Your task to perform on an android device: change notifications settings Image 0: 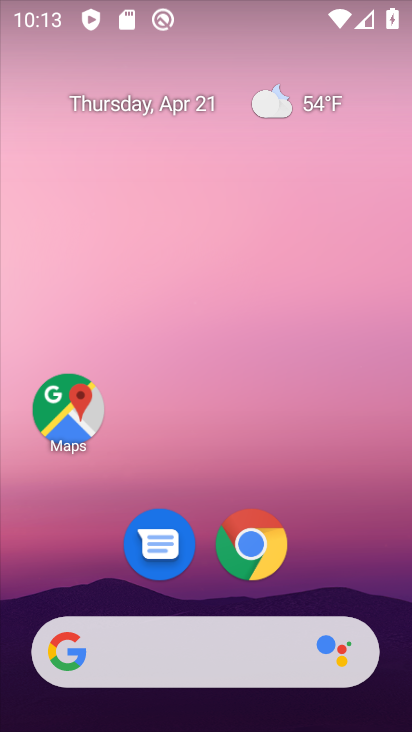
Step 0: click (20, 697)
Your task to perform on an android device: change notifications settings Image 1: 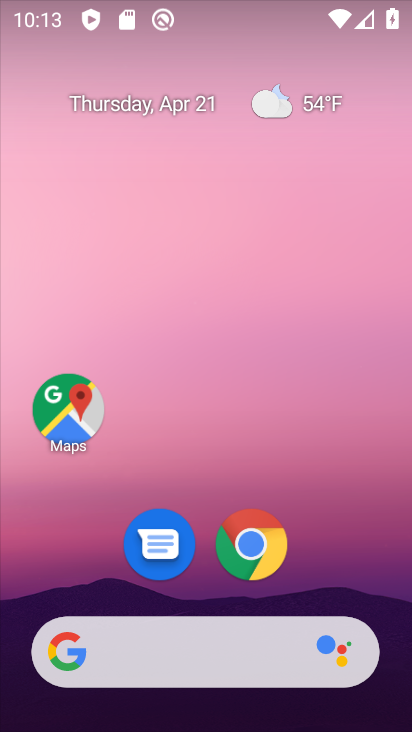
Step 1: drag from (82, 517) to (332, 173)
Your task to perform on an android device: change notifications settings Image 2: 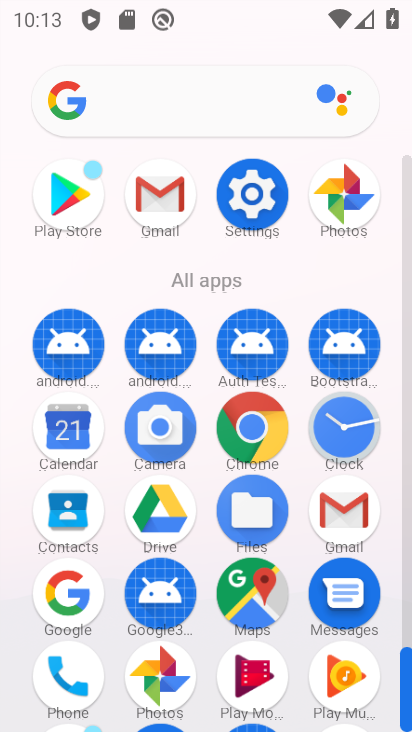
Step 2: click (266, 189)
Your task to perform on an android device: change notifications settings Image 3: 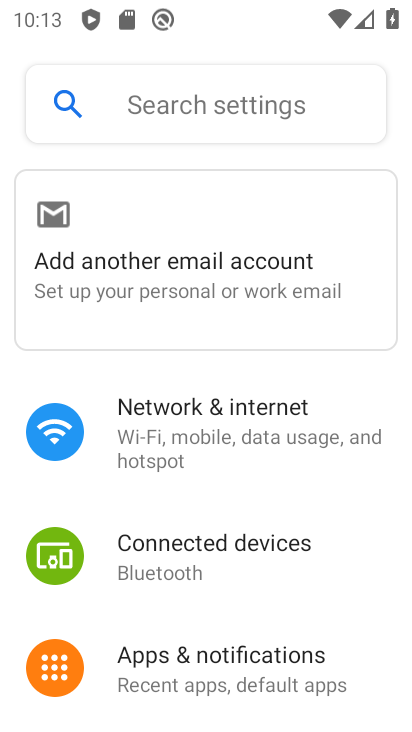
Step 3: click (177, 675)
Your task to perform on an android device: change notifications settings Image 4: 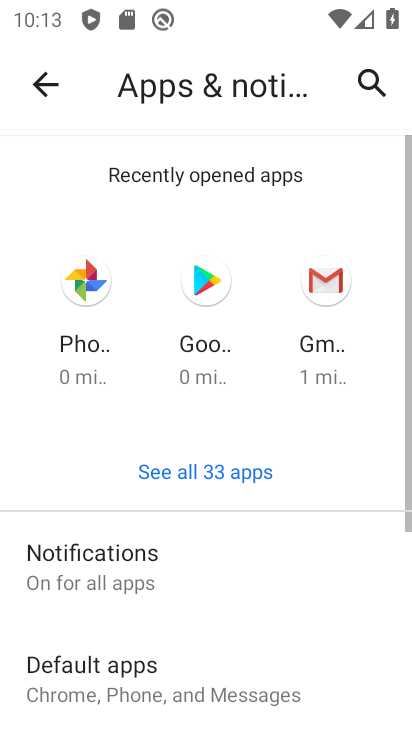
Step 4: click (177, 568)
Your task to perform on an android device: change notifications settings Image 5: 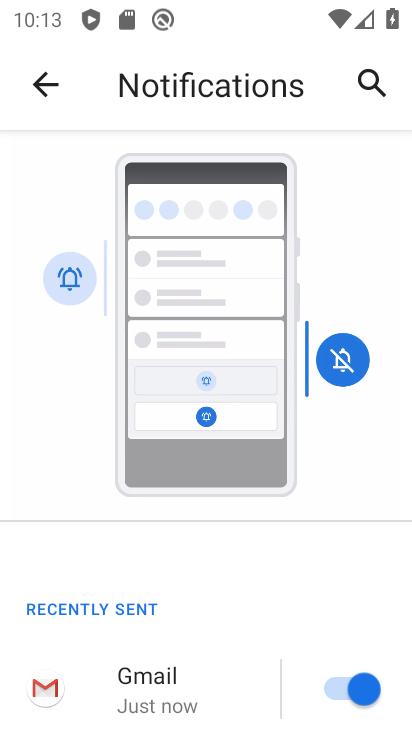
Step 5: drag from (108, 673) to (307, 326)
Your task to perform on an android device: change notifications settings Image 6: 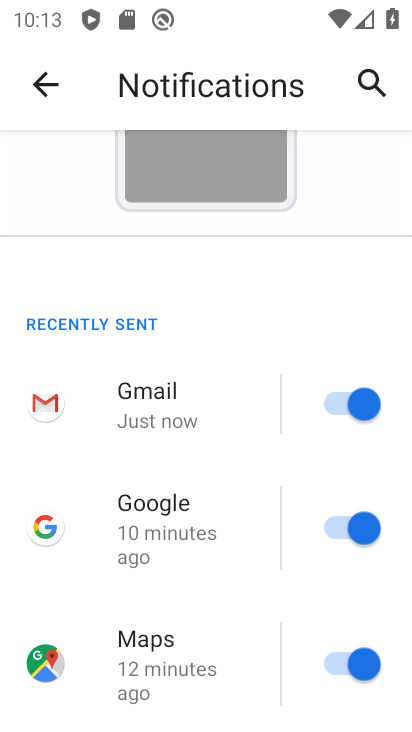
Step 6: drag from (137, 610) to (354, 239)
Your task to perform on an android device: change notifications settings Image 7: 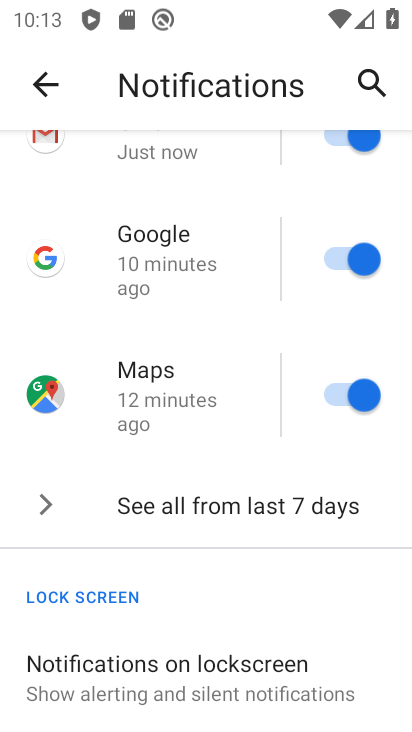
Step 7: drag from (81, 585) to (280, 321)
Your task to perform on an android device: change notifications settings Image 8: 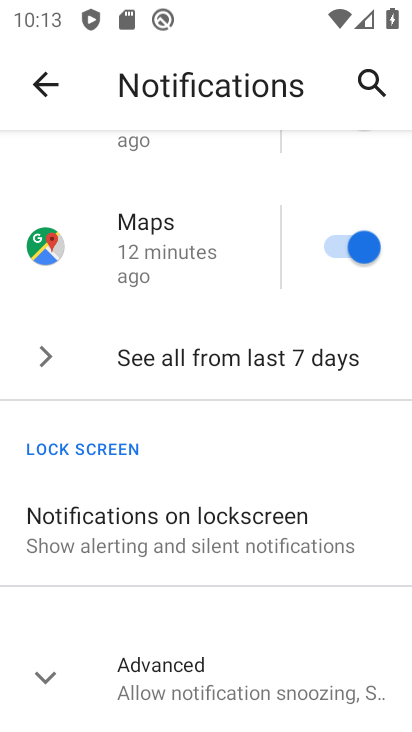
Step 8: drag from (291, 180) to (204, 569)
Your task to perform on an android device: change notifications settings Image 9: 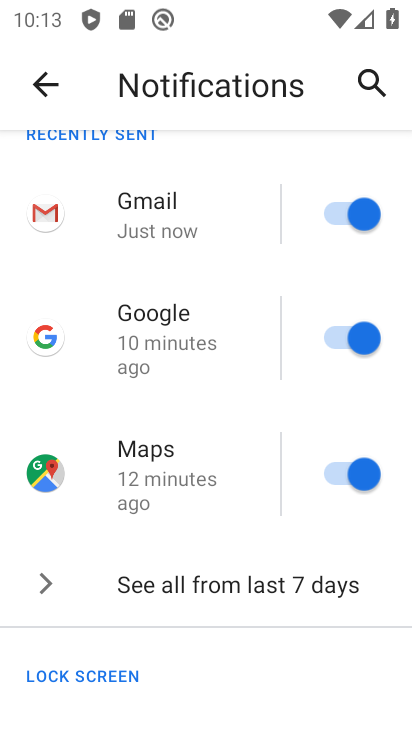
Step 9: click (359, 351)
Your task to perform on an android device: change notifications settings Image 10: 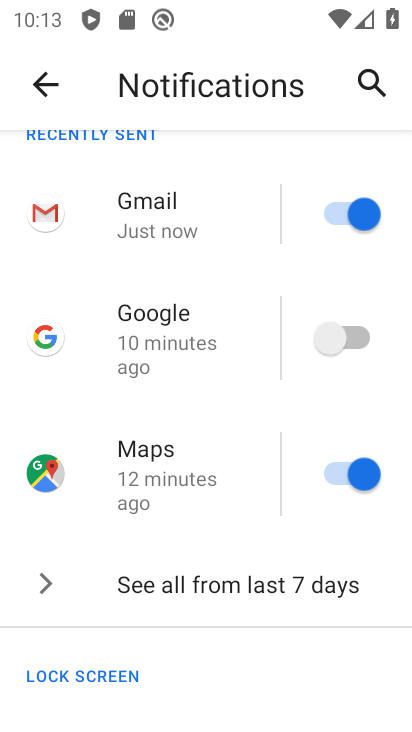
Step 10: task complete